Your task to perform on an android device: set the timer Image 0: 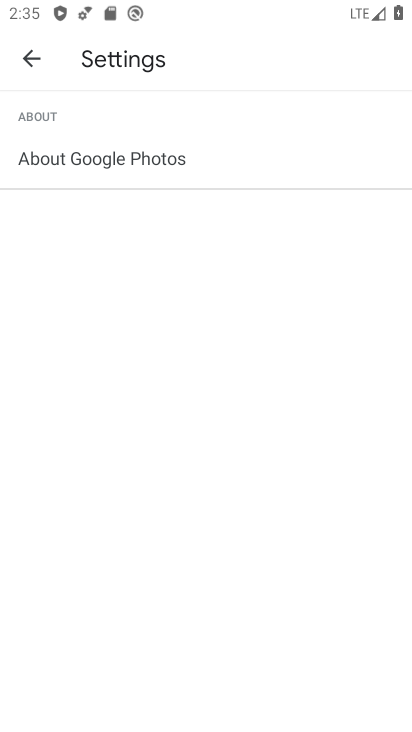
Step 0: press home button
Your task to perform on an android device: set the timer Image 1: 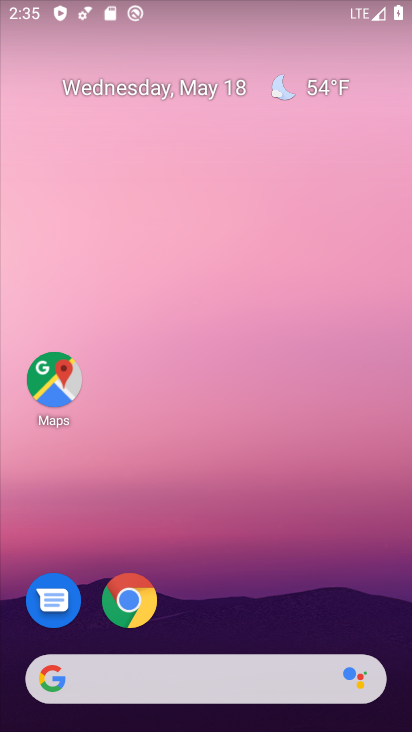
Step 1: drag from (192, 669) to (272, 97)
Your task to perform on an android device: set the timer Image 2: 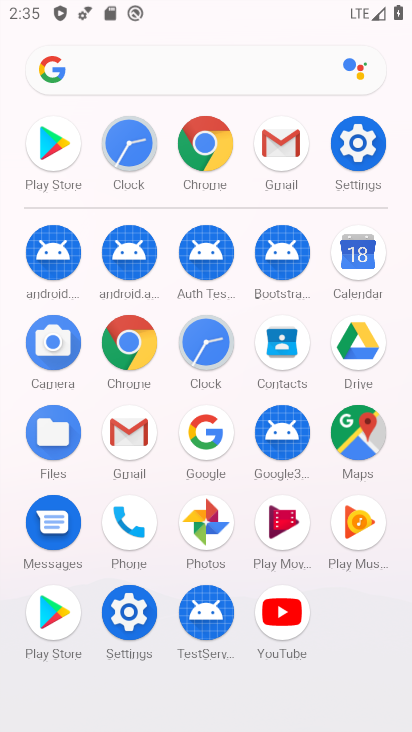
Step 2: click (130, 160)
Your task to perform on an android device: set the timer Image 3: 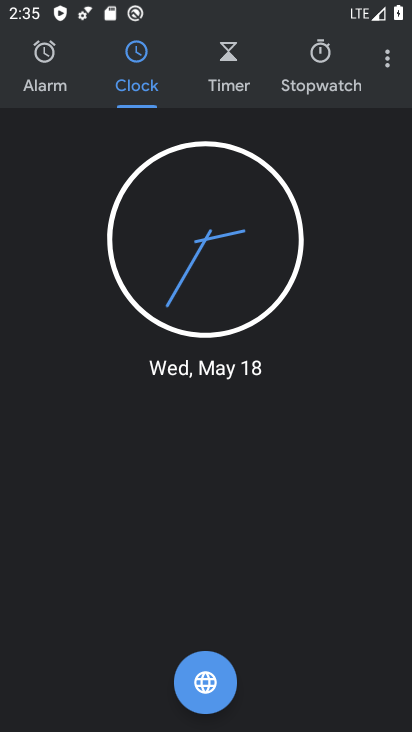
Step 3: click (220, 71)
Your task to perform on an android device: set the timer Image 4: 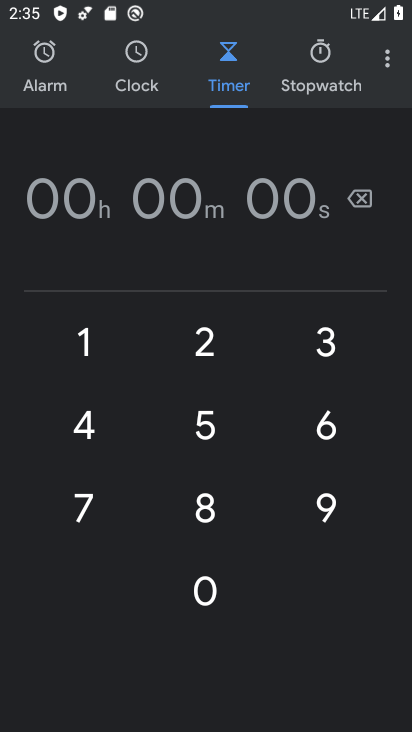
Step 4: click (82, 348)
Your task to perform on an android device: set the timer Image 5: 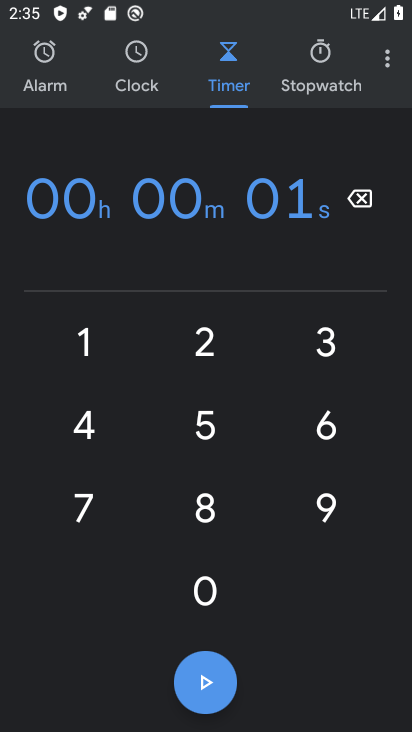
Step 5: click (198, 343)
Your task to perform on an android device: set the timer Image 6: 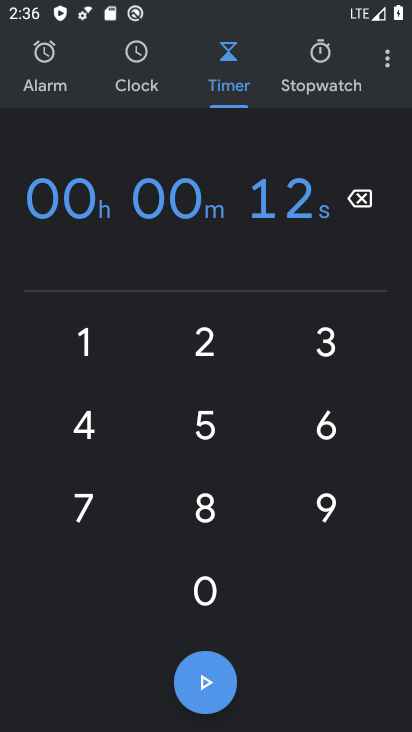
Step 6: click (200, 680)
Your task to perform on an android device: set the timer Image 7: 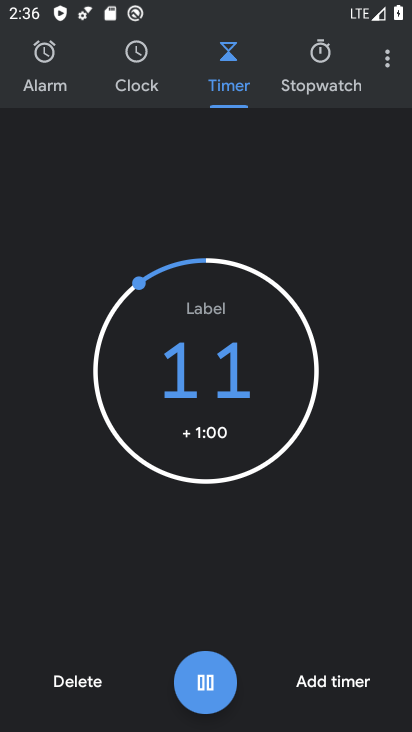
Step 7: click (200, 680)
Your task to perform on an android device: set the timer Image 8: 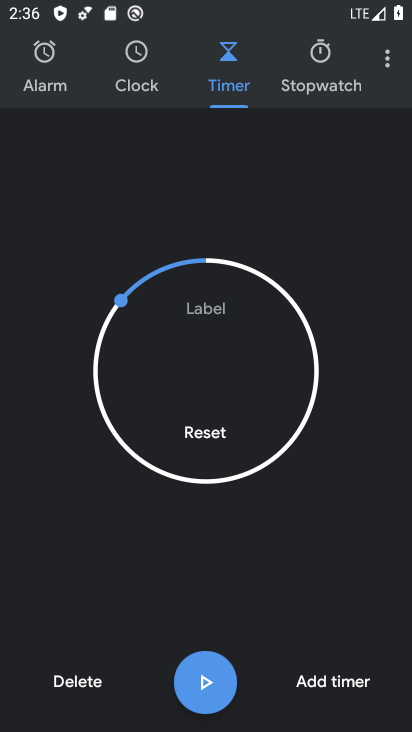
Step 8: task complete